Your task to perform on an android device: clear all cookies in the chrome app Image 0: 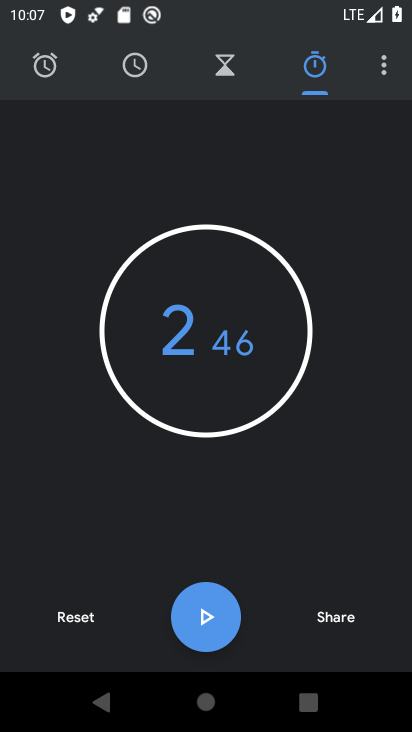
Step 0: press home button
Your task to perform on an android device: clear all cookies in the chrome app Image 1: 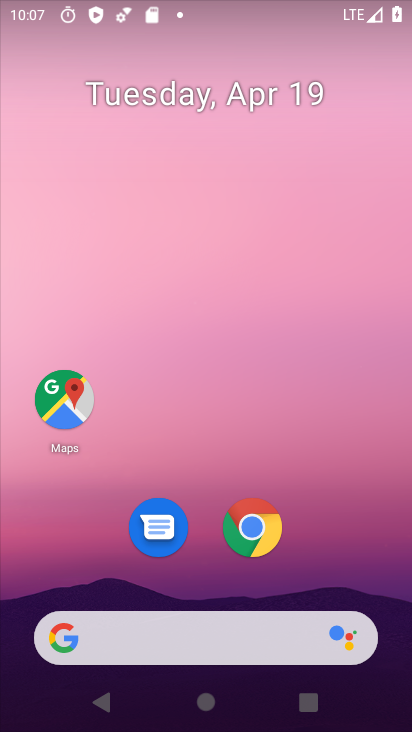
Step 1: drag from (274, 673) to (176, 377)
Your task to perform on an android device: clear all cookies in the chrome app Image 2: 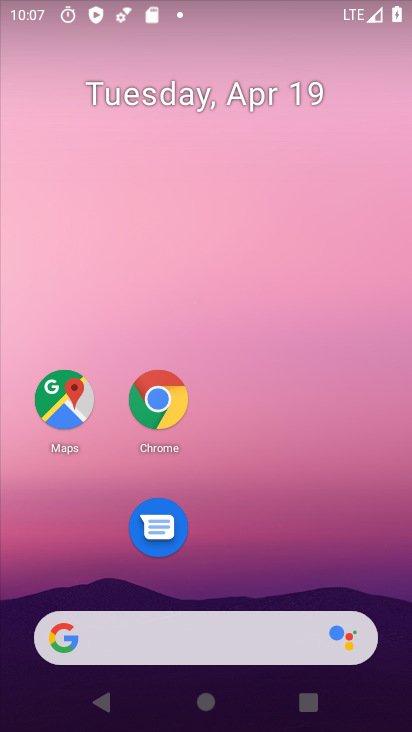
Step 2: drag from (287, 670) to (150, 97)
Your task to perform on an android device: clear all cookies in the chrome app Image 3: 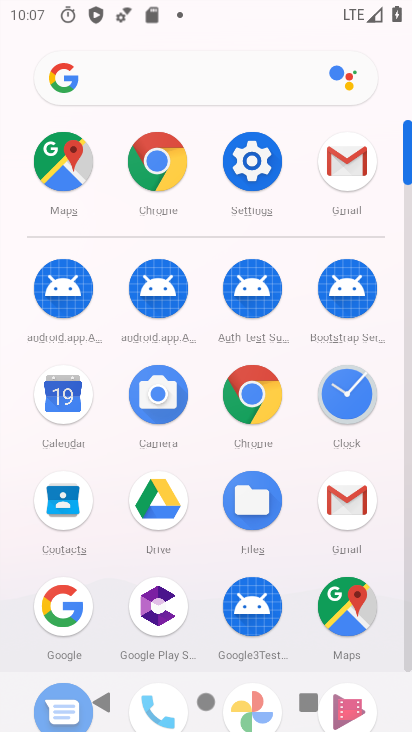
Step 3: click (147, 156)
Your task to perform on an android device: clear all cookies in the chrome app Image 4: 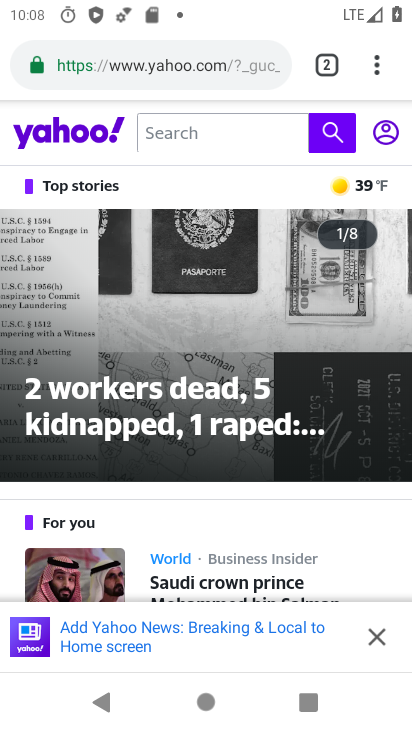
Step 4: click (366, 58)
Your task to perform on an android device: clear all cookies in the chrome app Image 5: 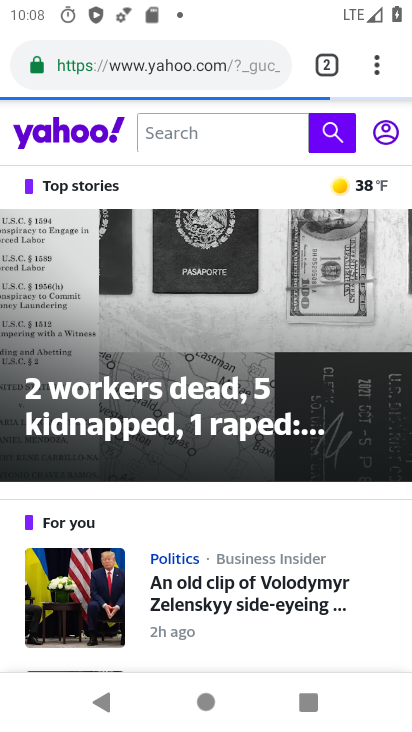
Step 5: click (374, 62)
Your task to perform on an android device: clear all cookies in the chrome app Image 6: 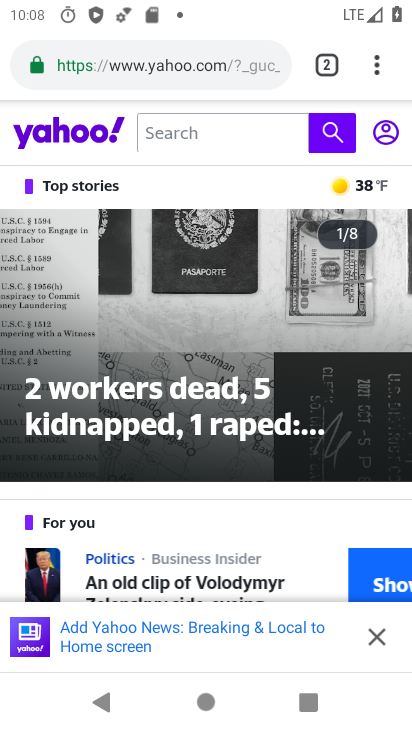
Step 6: click (374, 62)
Your task to perform on an android device: clear all cookies in the chrome app Image 7: 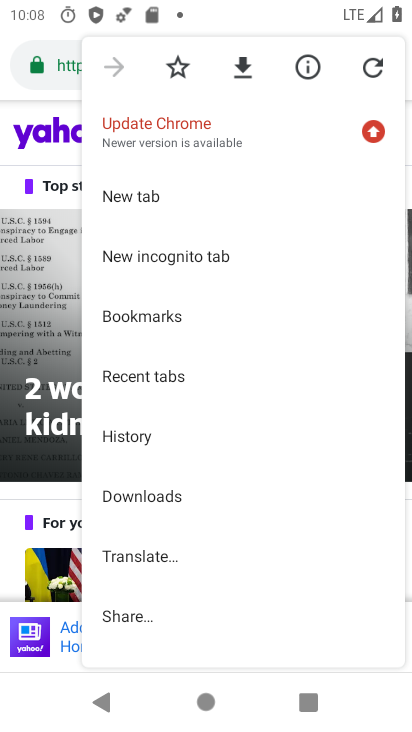
Step 7: click (161, 440)
Your task to perform on an android device: clear all cookies in the chrome app Image 8: 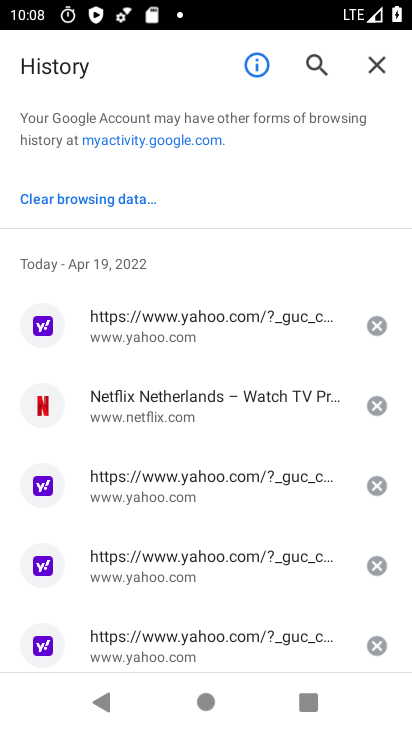
Step 8: click (91, 195)
Your task to perform on an android device: clear all cookies in the chrome app Image 9: 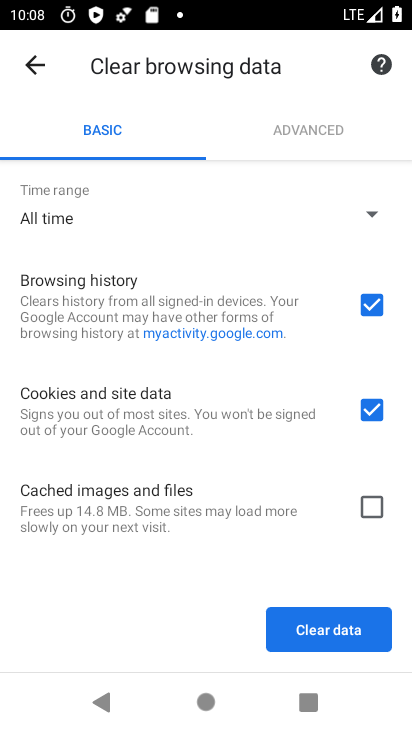
Step 9: click (370, 300)
Your task to perform on an android device: clear all cookies in the chrome app Image 10: 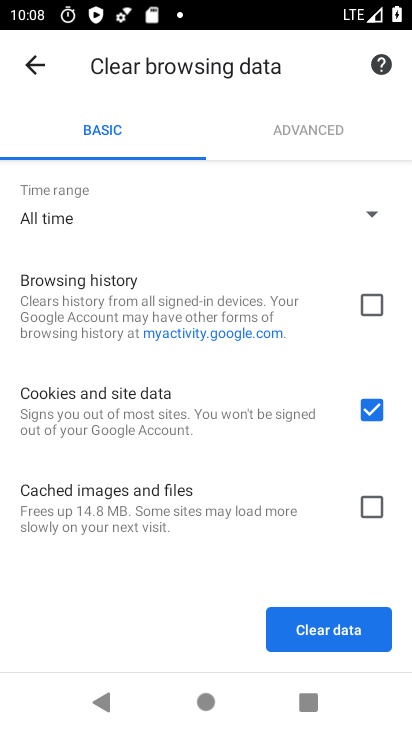
Step 10: click (330, 631)
Your task to perform on an android device: clear all cookies in the chrome app Image 11: 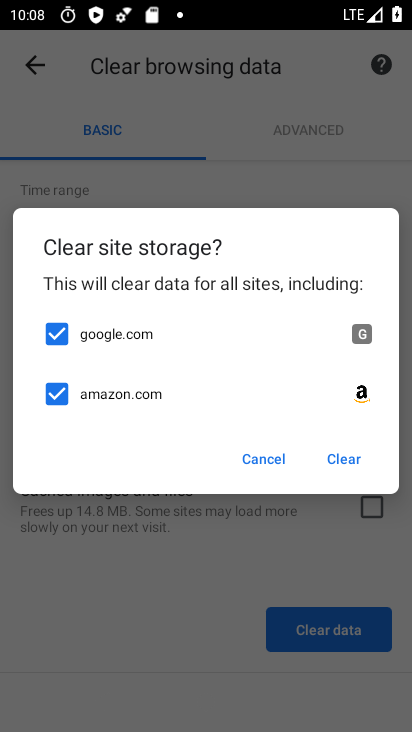
Step 11: task complete